Your task to perform on an android device: Open battery settings Image 0: 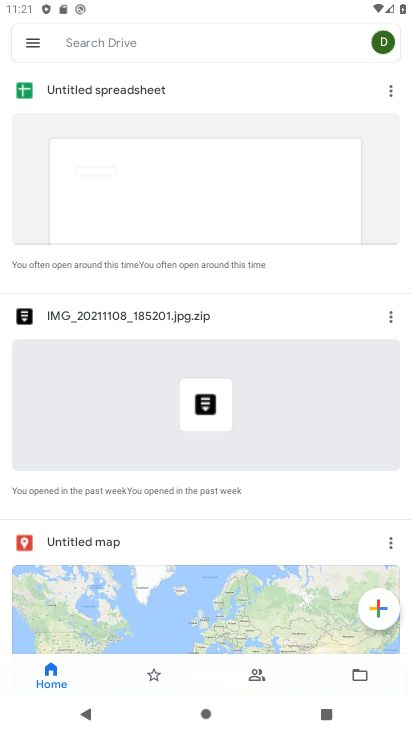
Step 0: press home button
Your task to perform on an android device: Open battery settings Image 1: 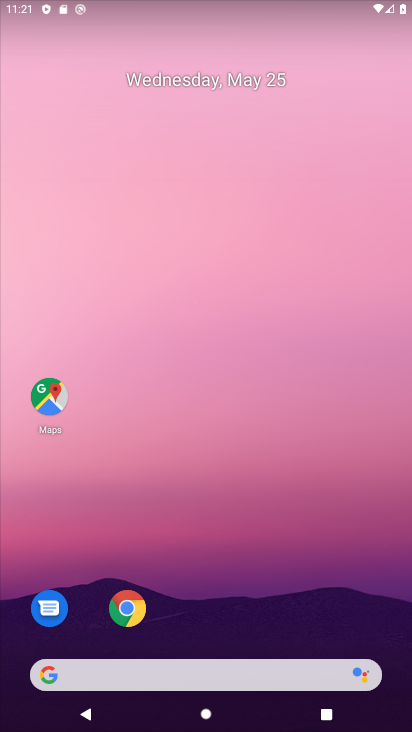
Step 1: drag from (182, 627) to (281, 41)
Your task to perform on an android device: Open battery settings Image 2: 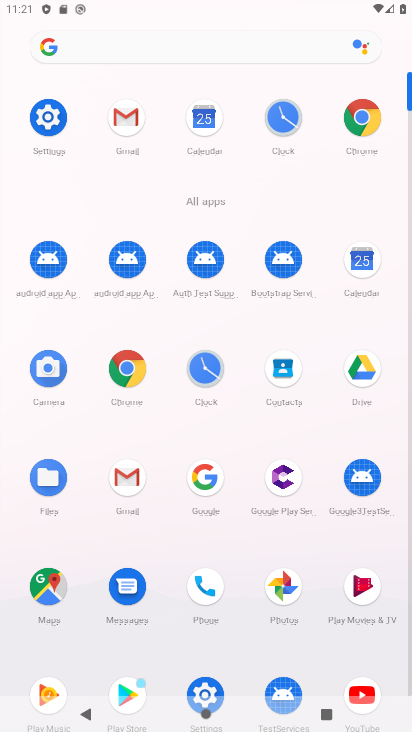
Step 2: click (39, 179)
Your task to perform on an android device: Open battery settings Image 3: 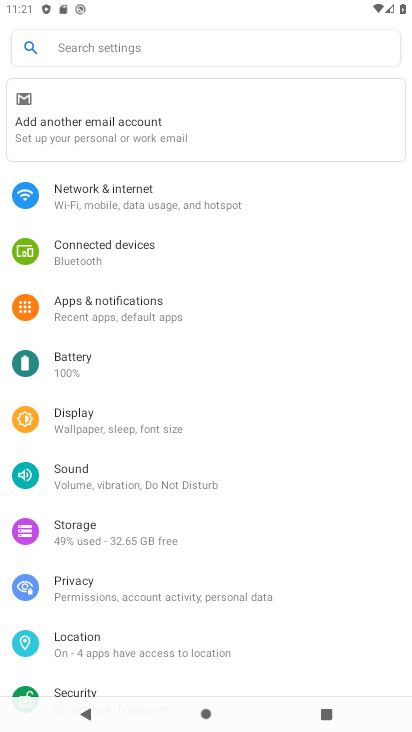
Step 3: click (112, 369)
Your task to perform on an android device: Open battery settings Image 4: 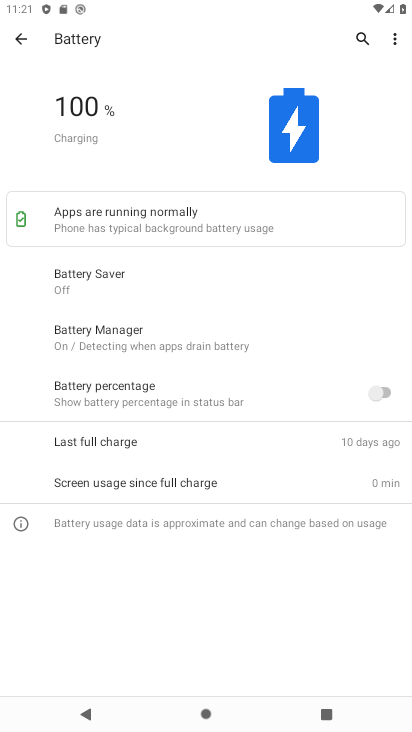
Step 4: task complete